Your task to perform on an android device: Open the Play Movies app and select the watchlist tab. Image 0: 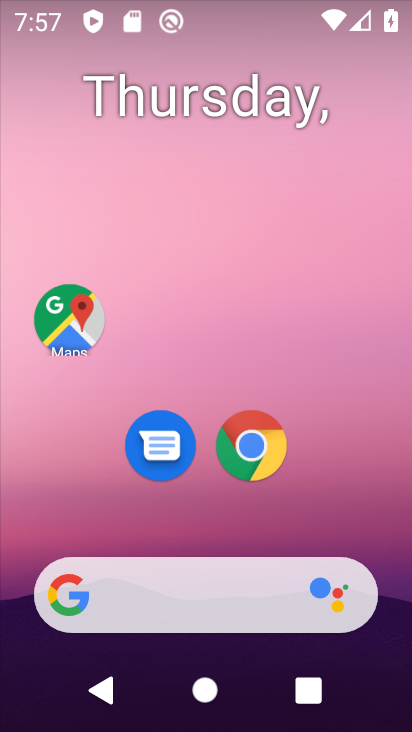
Step 0: drag from (375, 459) to (318, 5)
Your task to perform on an android device: Open the Play Movies app and select the watchlist tab. Image 1: 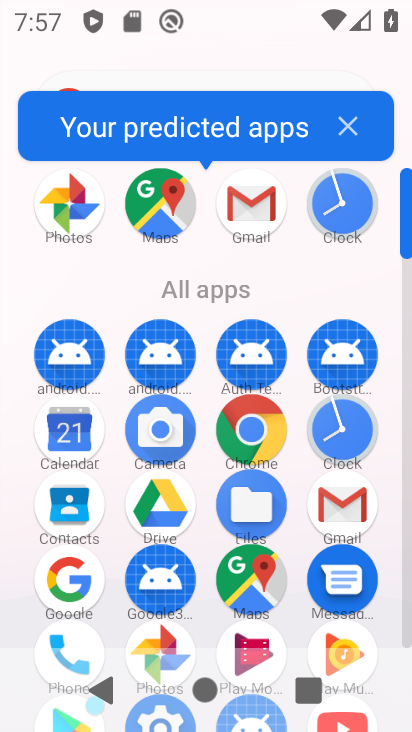
Step 1: drag from (397, 559) to (387, 454)
Your task to perform on an android device: Open the Play Movies app and select the watchlist tab. Image 2: 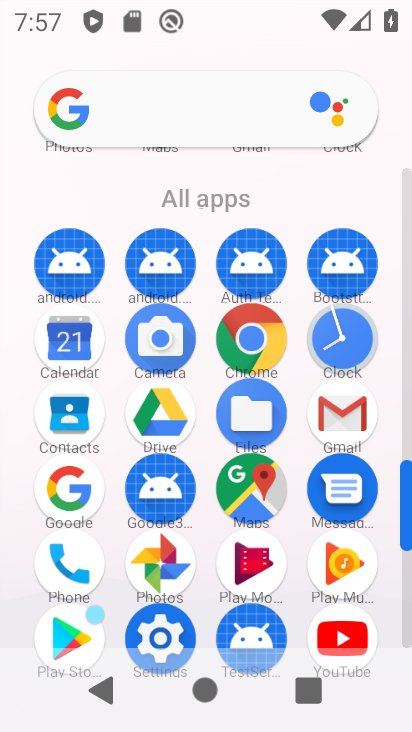
Step 2: click (263, 561)
Your task to perform on an android device: Open the Play Movies app and select the watchlist tab. Image 3: 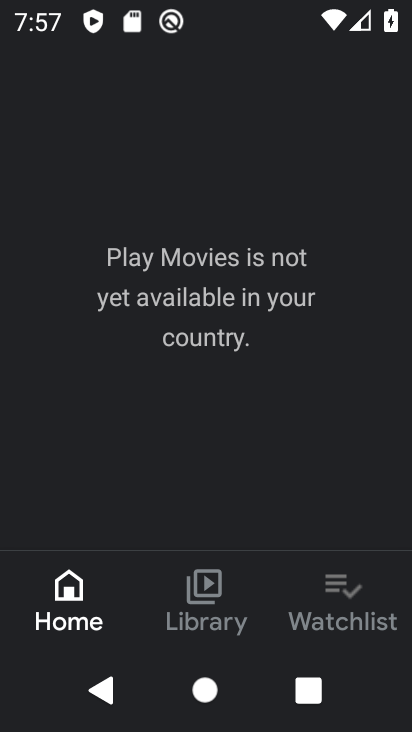
Step 3: click (319, 602)
Your task to perform on an android device: Open the Play Movies app and select the watchlist tab. Image 4: 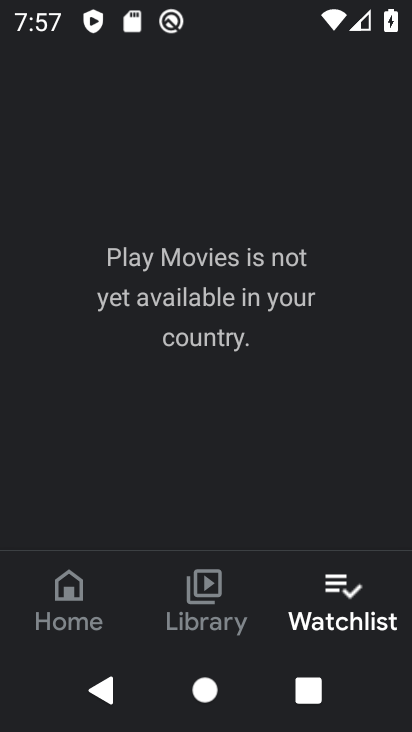
Step 4: task complete